Your task to perform on an android device: turn on priority inbox in the gmail app Image 0: 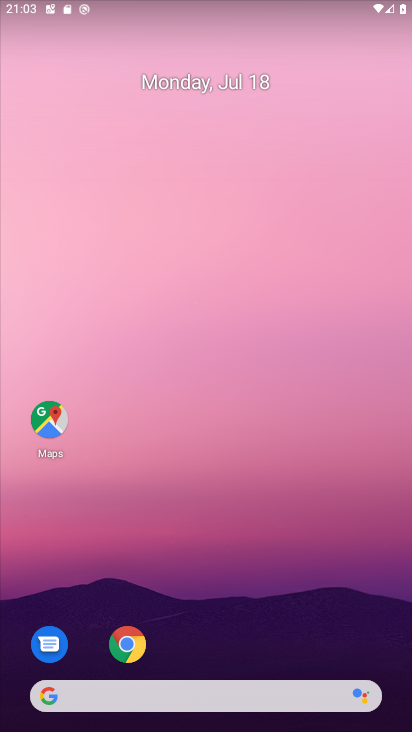
Step 0: task complete